Your task to perform on an android device: find photos in the google photos app Image 0: 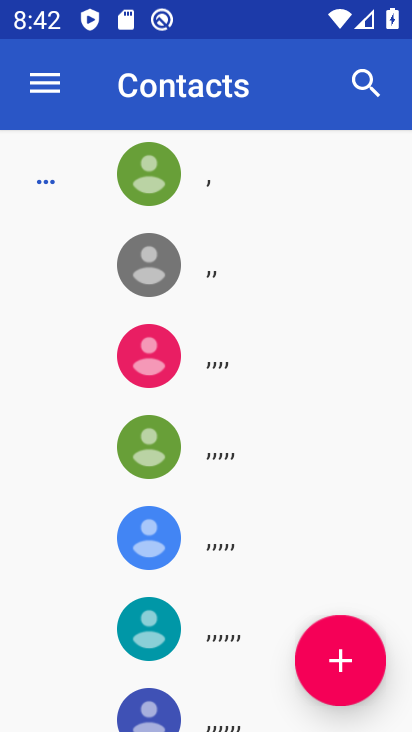
Step 0: press home button
Your task to perform on an android device: find photos in the google photos app Image 1: 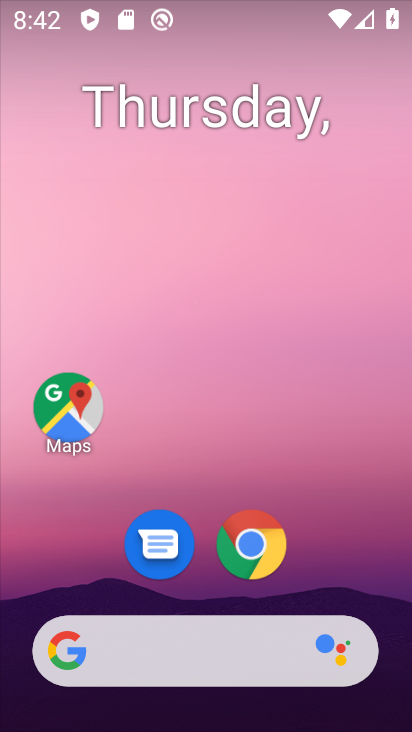
Step 1: drag from (130, 715) to (105, 32)
Your task to perform on an android device: find photos in the google photos app Image 2: 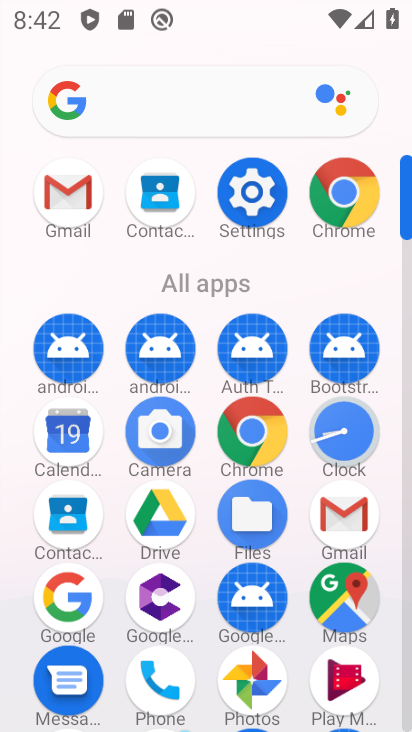
Step 2: click (262, 669)
Your task to perform on an android device: find photos in the google photos app Image 3: 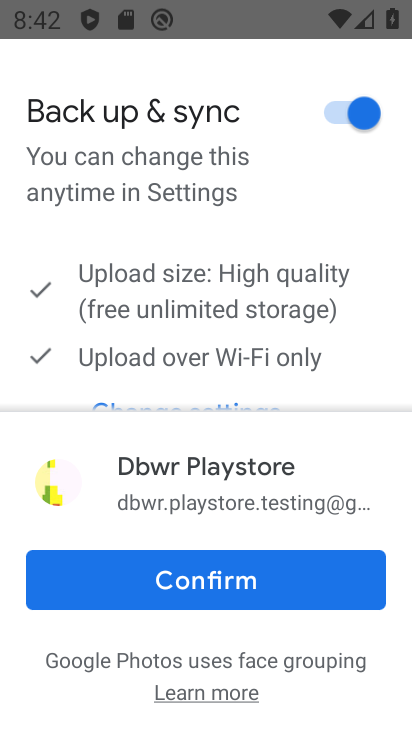
Step 3: click (248, 592)
Your task to perform on an android device: find photos in the google photos app Image 4: 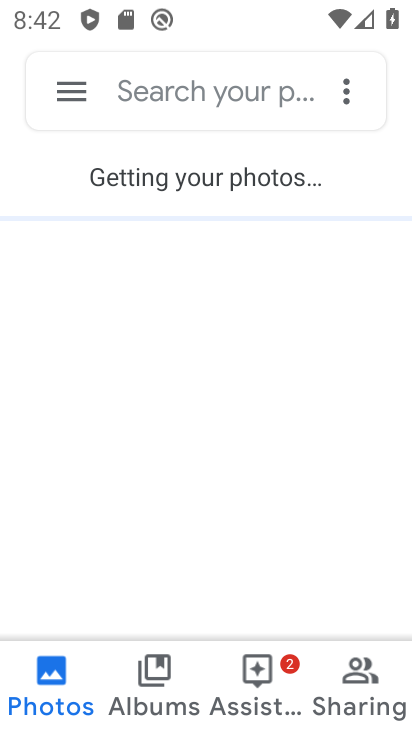
Step 4: task complete